Your task to perform on an android device: Add logitech g910 to the cart on walmart, then select checkout. Image 0: 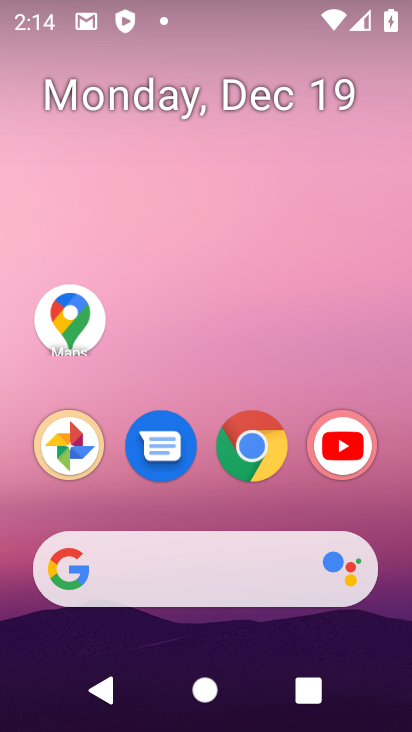
Step 0: click (241, 455)
Your task to perform on an android device: Add logitech g910 to the cart on walmart, then select checkout. Image 1: 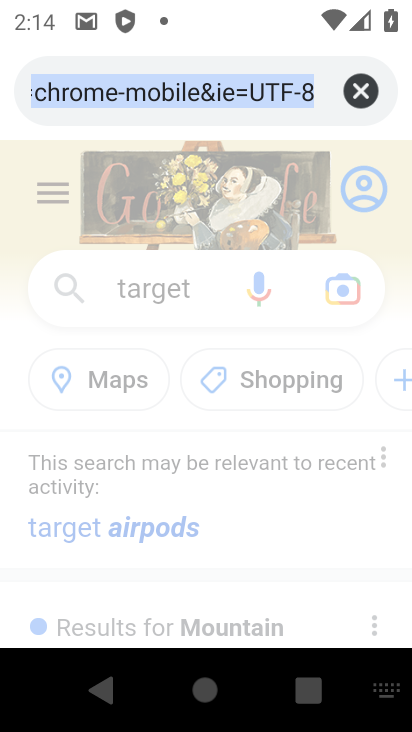
Step 1: type "walmart"
Your task to perform on an android device: Add logitech g910 to the cart on walmart, then select checkout. Image 2: 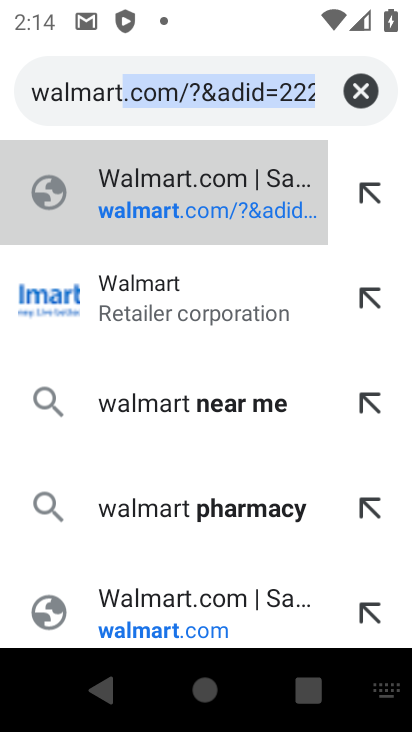
Step 2: click (208, 223)
Your task to perform on an android device: Add logitech g910 to the cart on walmart, then select checkout. Image 3: 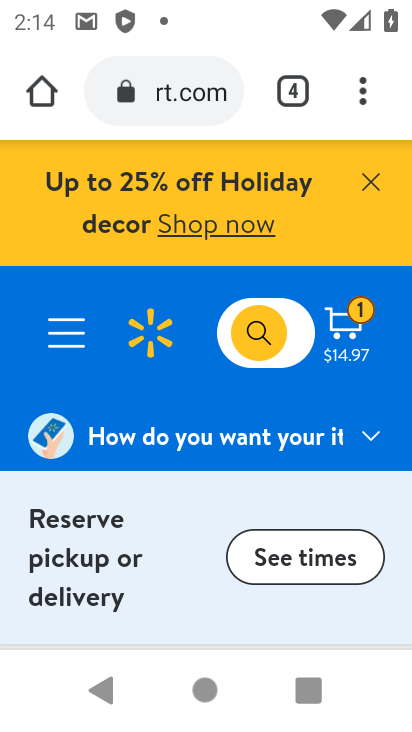
Step 3: click (361, 199)
Your task to perform on an android device: Add logitech g910 to the cart on walmart, then select checkout. Image 4: 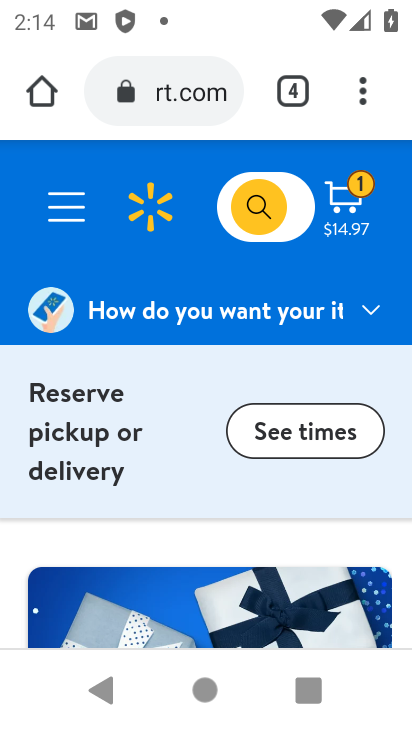
Step 4: task complete